Your task to perform on an android device: turn off smart reply in the gmail app Image 0: 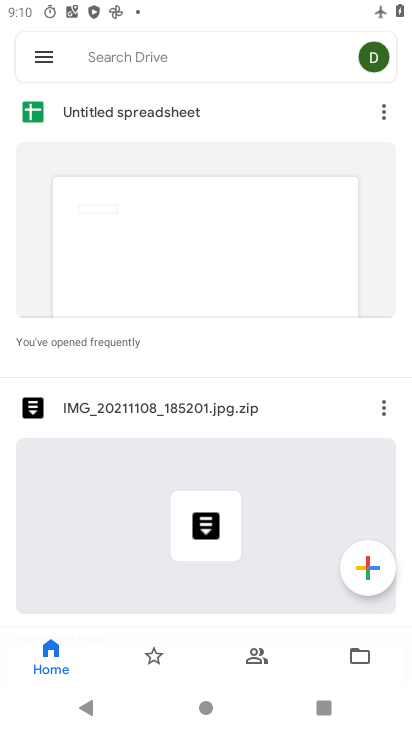
Step 0: press home button
Your task to perform on an android device: turn off smart reply in the gmail app Image 1: 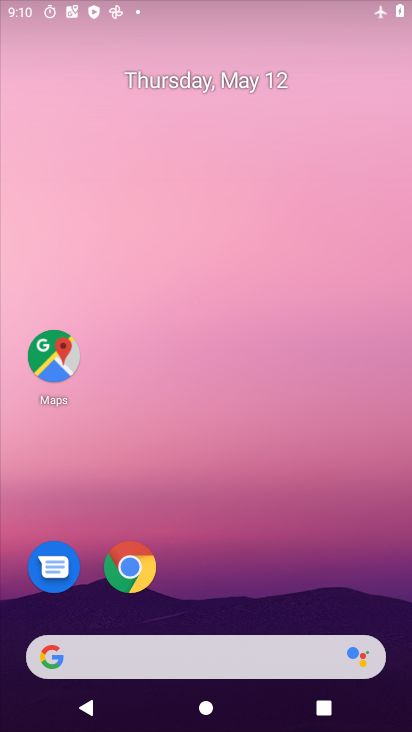
Step 1: drag from (234, 643) to (239, 265)
Your task to perform on an android device: turn off smart reply in the gmail app Image 2: 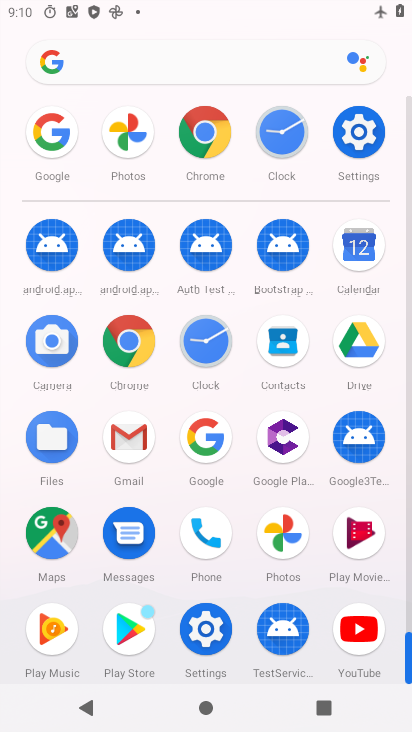
Step 2: click (142, 443)
Your task to perform on an android device: turn off smart reply in the gmail app Image 3: 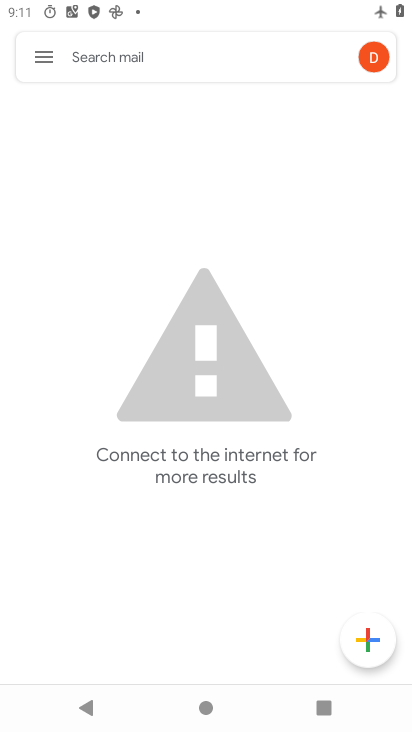
Step 3: click (46, 56)
Your task to perform on an android device: turn off smart reply in the gmail app Image 4: 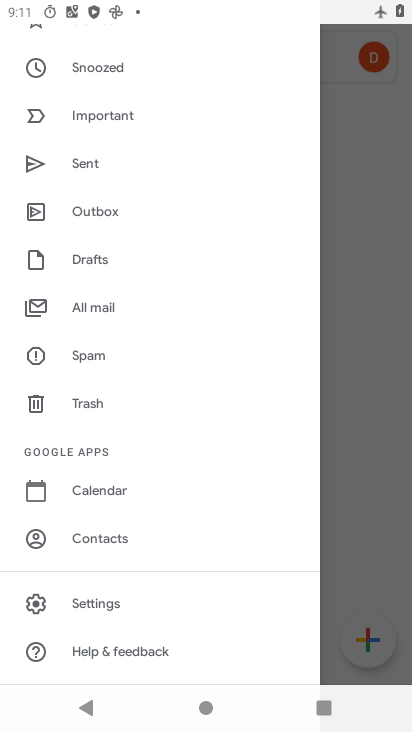
Step 4: click (69, 608)
Your task to perform on an android device: turn off smart reply in the gmail app Image 5: 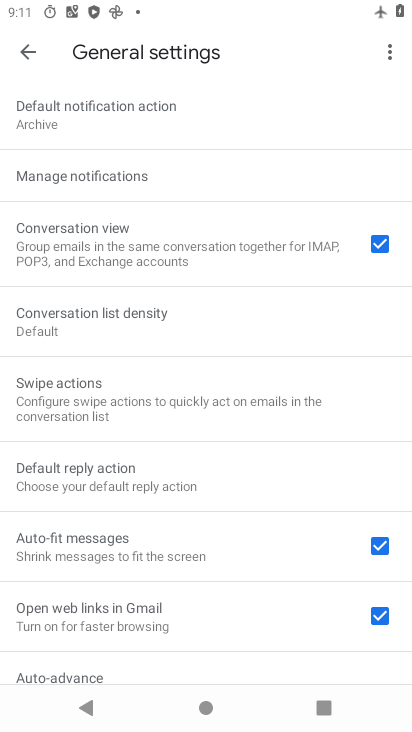
Step 5: drag from (137, 584) to (177, 287)
Your task to perform on an android device: turn off smart reply in the gmail app Image 6: 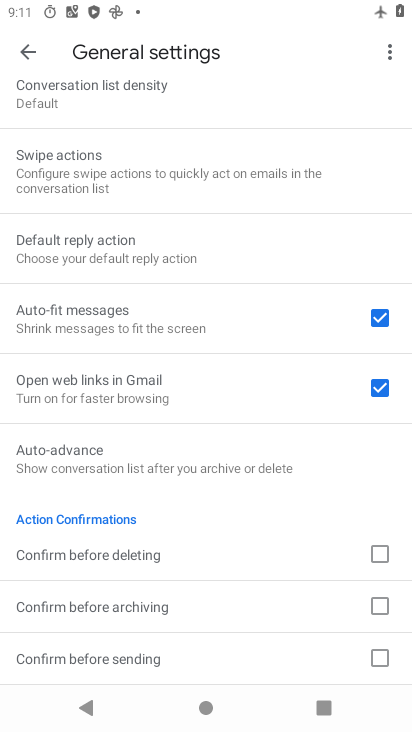
Step 6: click (15, 60)
Your task to perform on an android device: turn off smart reply in the gmail app Image 7: 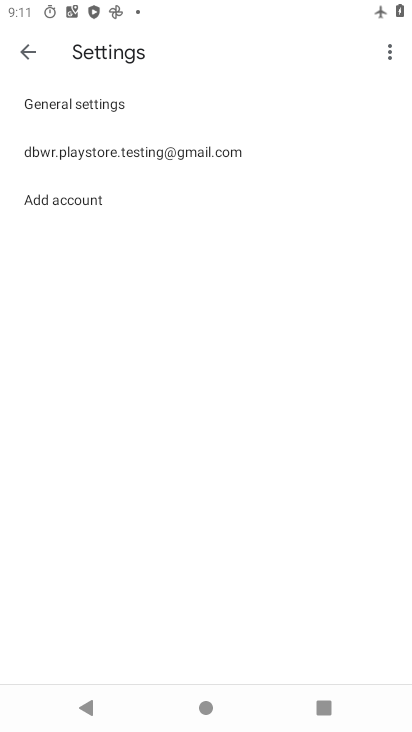
Step 7: click (75, 159)
Your task to perform on an android device: turn off smart reply in the gmail app Image 8: 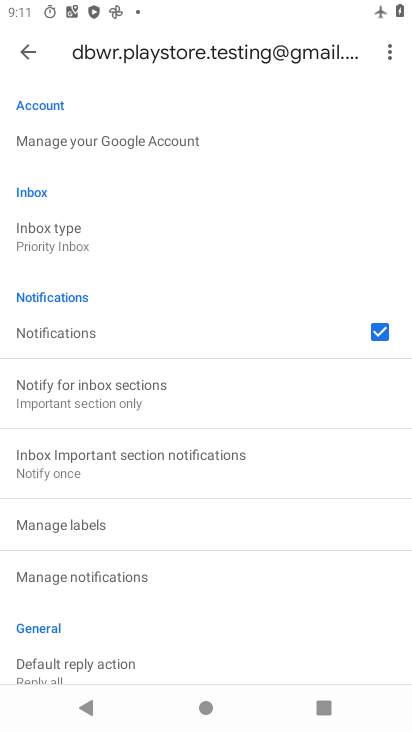
Step 8: drag from (188, 597) to (187, 345)
Your task to perform on an android device: turn off smart reply in the gmail app Image 9: 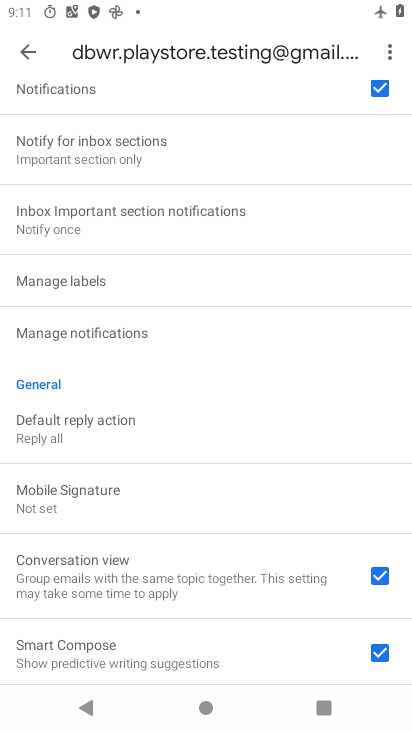
Step 9: drag from (159, 562) to (182, 387)
Your task to perform on an android device: turn off smart reply in the gmail app Image 10: 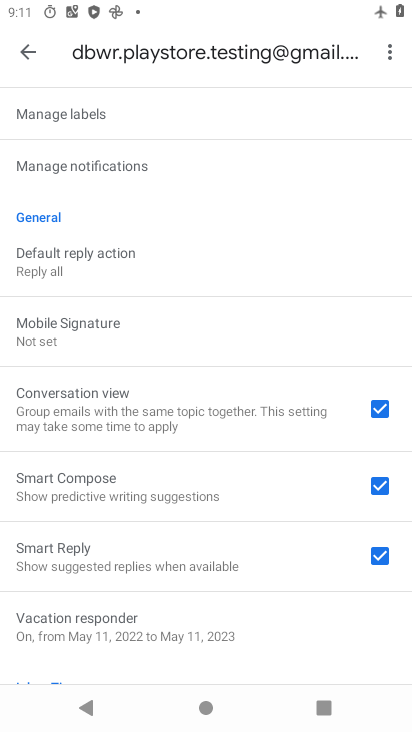
Step 10: click (385, 557)
Your task to perform on an android device: turn off smart reply in the gmail app Image 11: 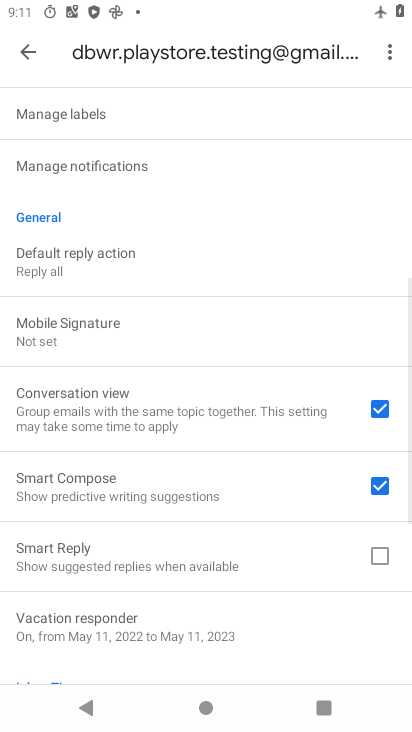
Step 11: task complete